Your task to perform on an android device: Is it going to rain today? Image 0: 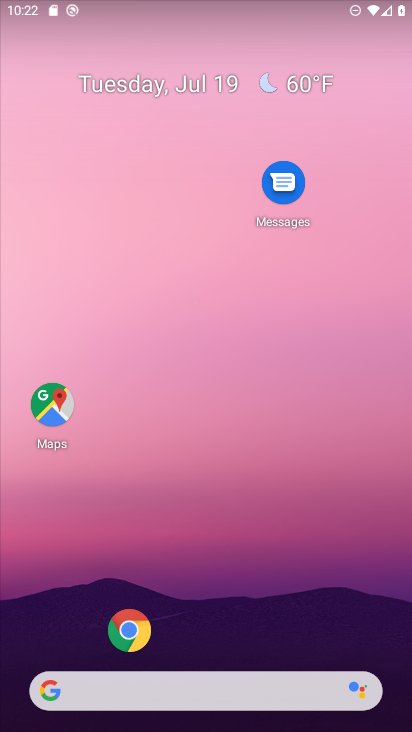
Step 0: click (84, 694)
Your task to perform on an android device: Is it going to rain today? Image 1: 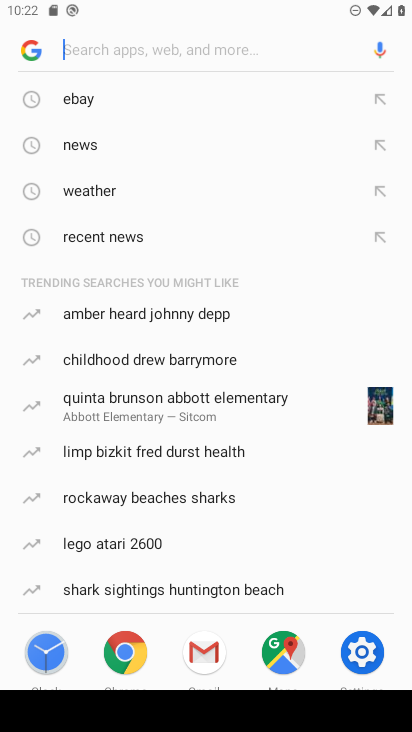
Step 1: type "Is it going to rain today?"
Your task to perform on an android device: Is it going to rain today? Image 2: 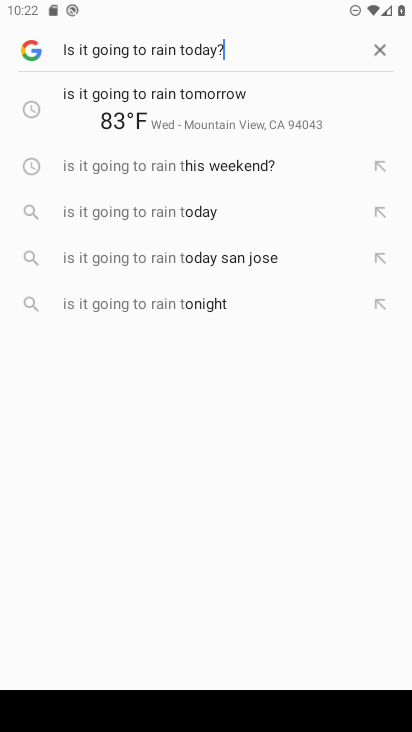
Step 2: type ""
Your task to perform on an android device: Is it going to rain today? Image 3: 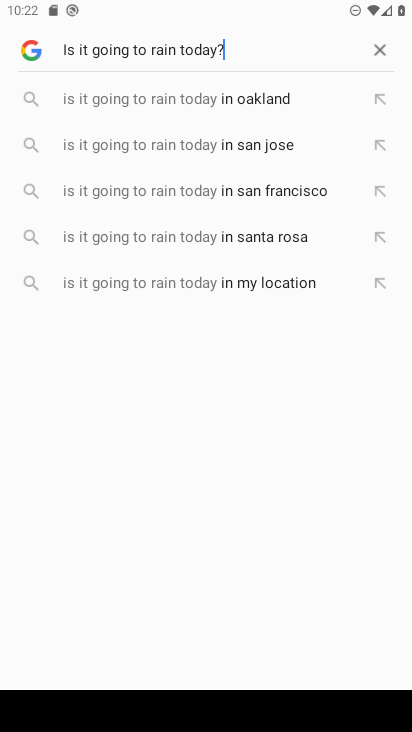
Step 3: task complete